Your task to perform on an android device: Open wifi settings Image 0: 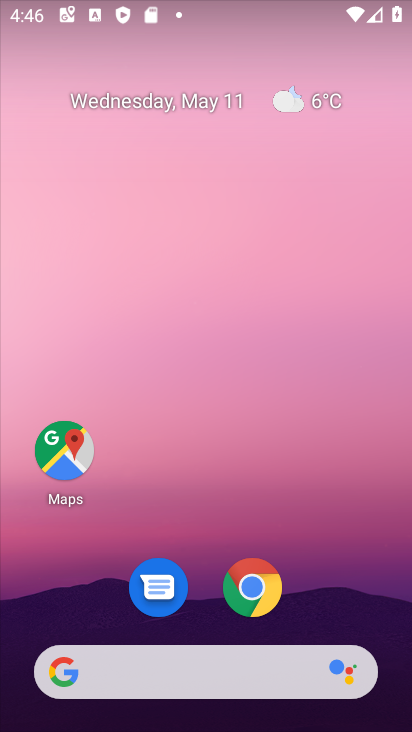
Step 0: drag from (251, 480) to (193, 100)
Your task to perform on an android device: Open wifi settings Image 1: 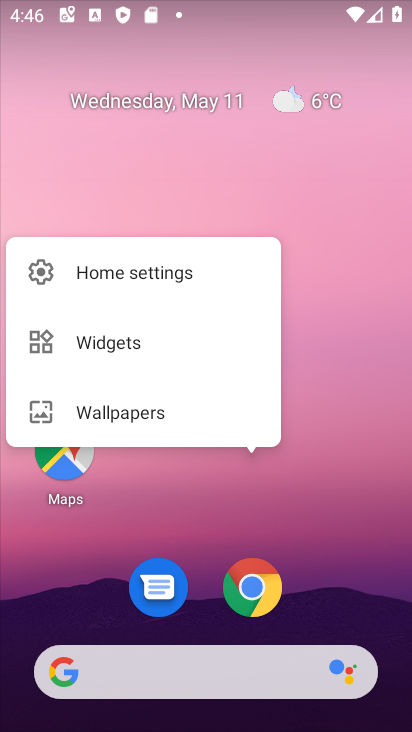
Step 1: click (352, 451)
Your task to perform on an android device: Open wifi settings Image 2: 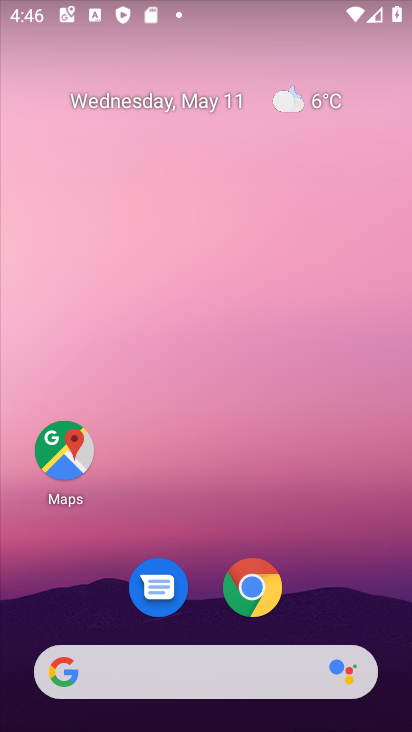
Step 2: drag from (352, 451) to (339, 161)
Your task to perform on an android device: Open wifi settings Image 3: 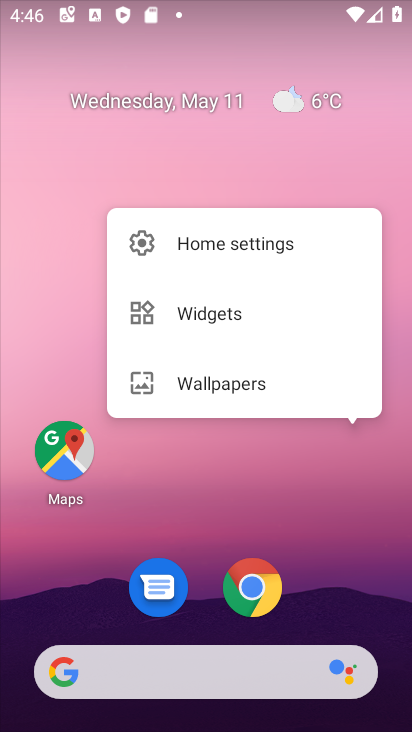
Step 3: click (315, 470)
Your task to perform on an android device: Open wifi settings Image 4: 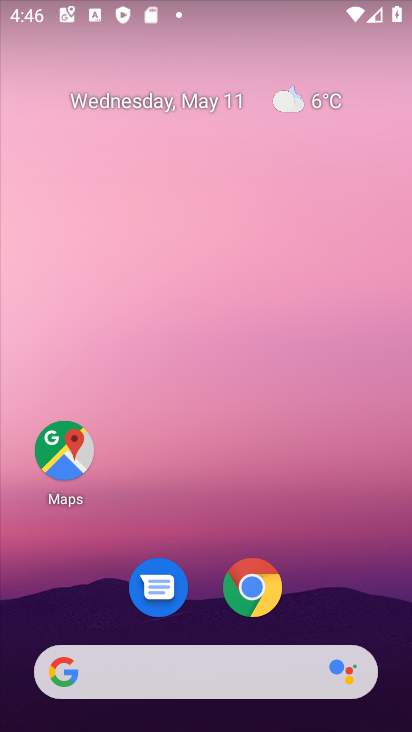
Step 4: drag from (278, 492) to (285, 303)
Your task to perform on an android device: Open wifi settings Image 5: 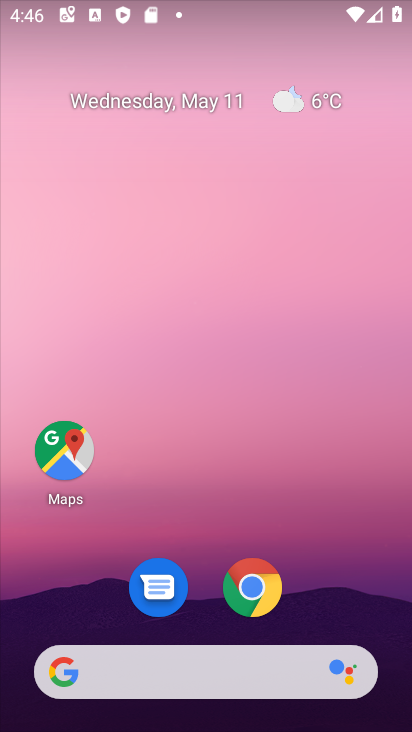
Step 5: drag from (345, 591) to (348, 107)
Your task to perform on an android device: Open wifi settings Image 6: 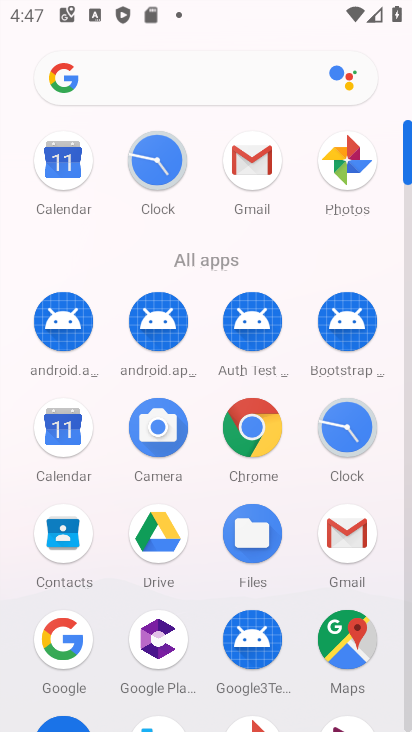
Step 6: drag from (195, 598) to (165, 214)
Your task to perform on an android device: Open wifi settings Image 7: 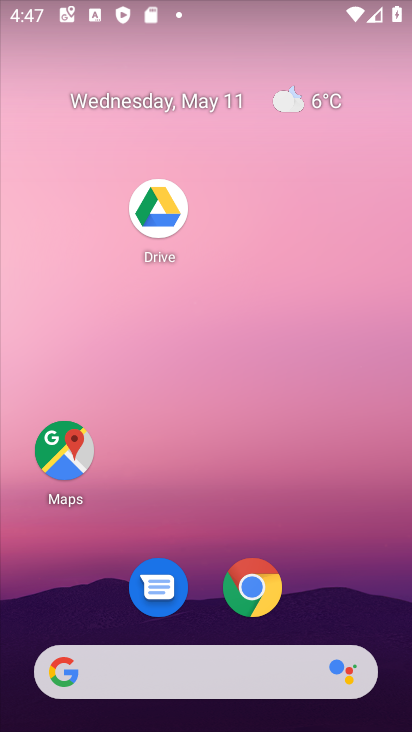
Step 7: drag from (309, 534) to (307, 107)
Your task to perform on an android device: Open wifi settings Image 8: 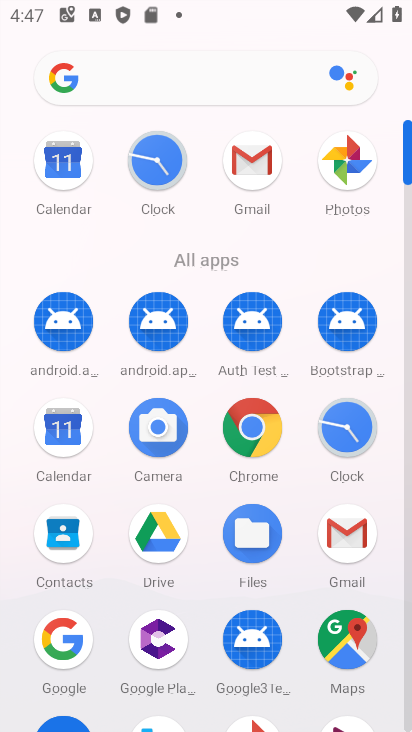
Step 8: drag from (289, 666) to (319, 273)
Your task to perform on an android device: Open wifi settings Image 9: 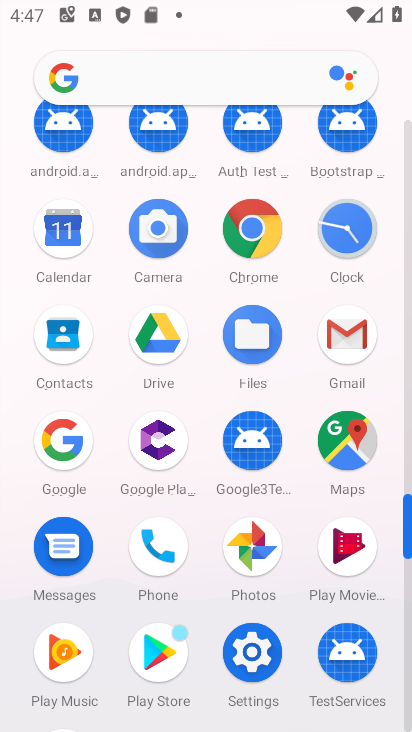
Step 9: click (247, 662)
Your task to perform on an android device: Open wifi settings Image 10: 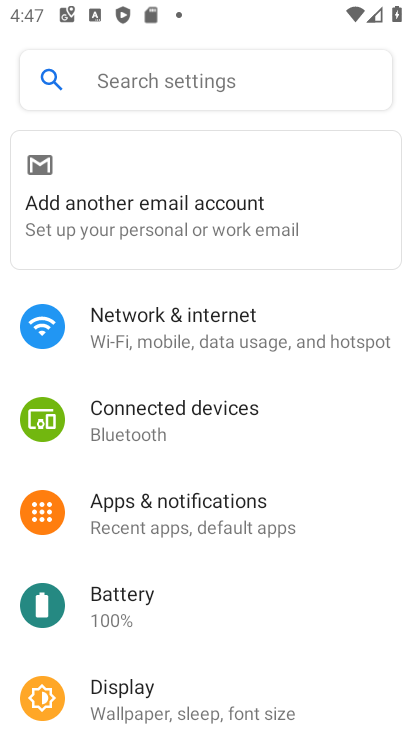
Step 10: click (159, 189)
Your task to perform on an android device: Open wifi settings Image 11: 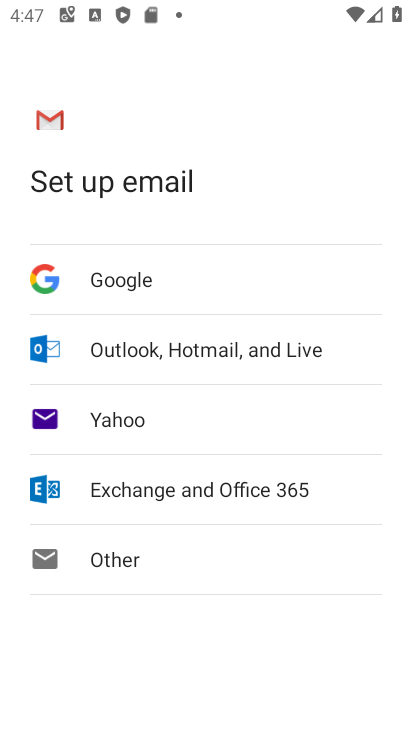
Step 11: press back button
Your task to perform on an android device: Open wifi settings Image 12: 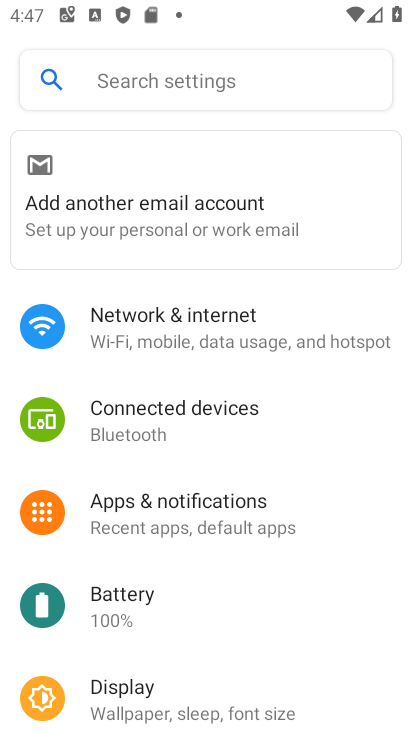
Step 12: click (220, 191)
Your task to perform on an android device: Open wifi settings Image 13: 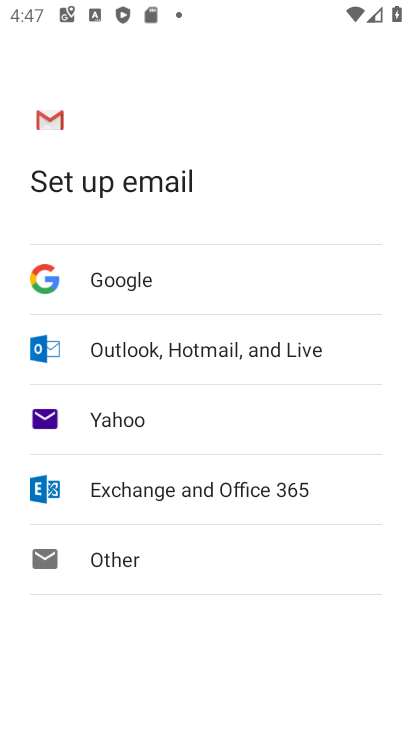
Step 13: press back button
Your task to perform on an android device: Open wifi settings Image 14: 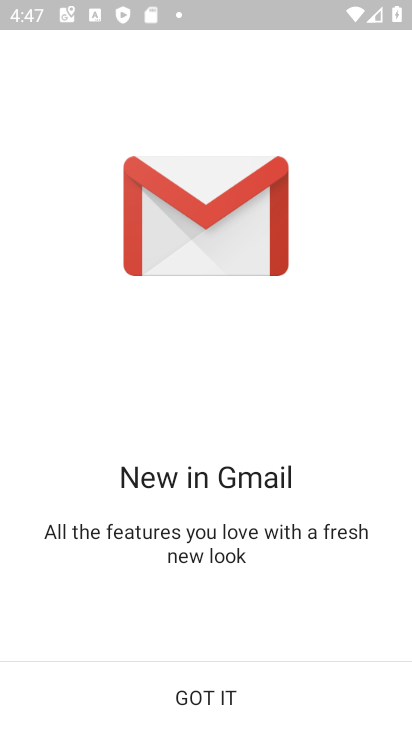
Step 14: press back button
Your task to perform on an android device: Open wifi settings Image 15: 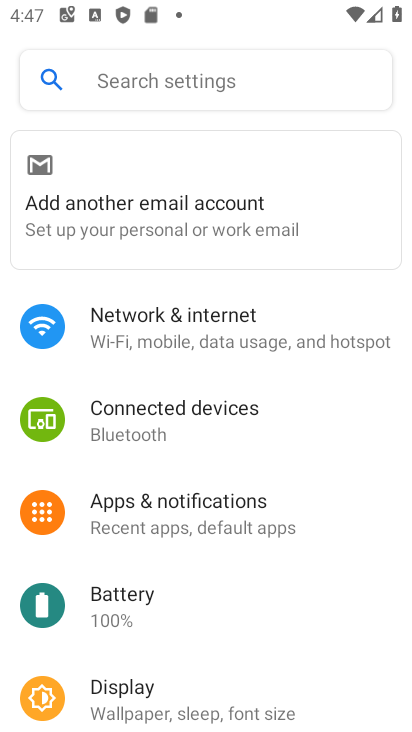
Step 15: click (189, 348)
Your task to perform on an android device: Open wifi settings Image 16: 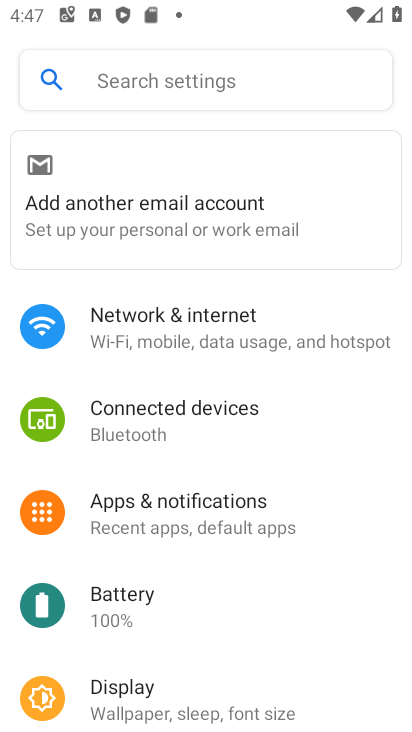
Step 16: click (229, 332)
Your task to perform on an android device: Open wifi settings Image 17: 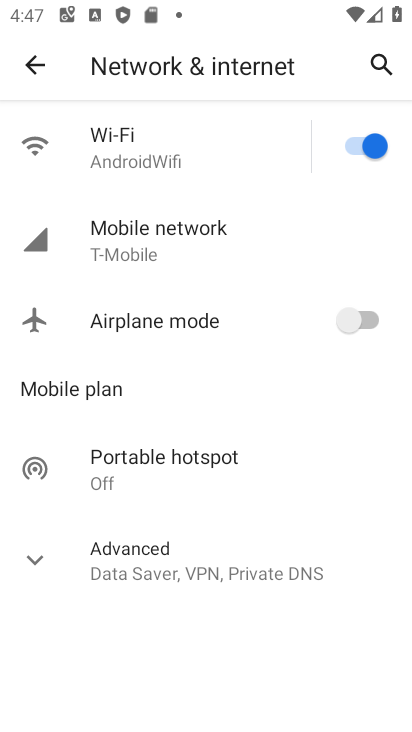
Step 17: click (128, 155)
Your task to perform on an android device: Open wifi settings Image 18: 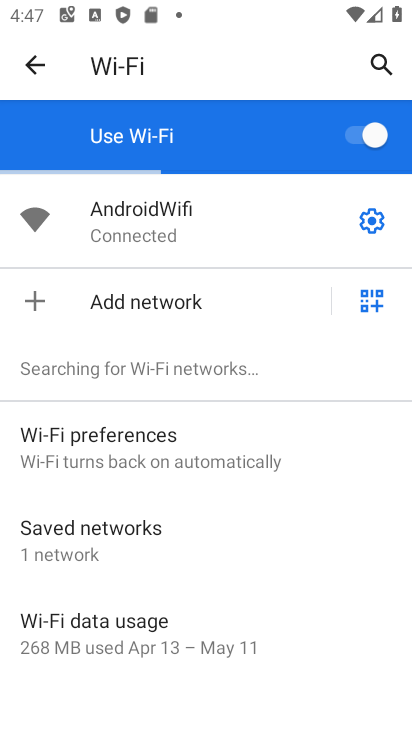
Step 18: task complete